Your task to perform on an android device: toggle notification dots Image 0: 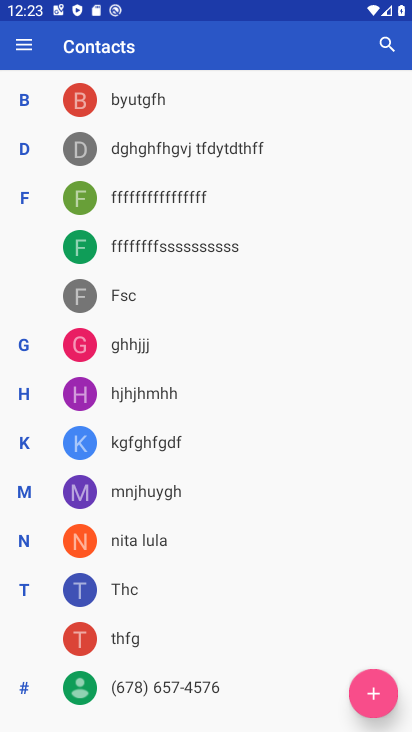
Step 0: press home button
Your task to perform on an android device: toggle notification dots Image 1: 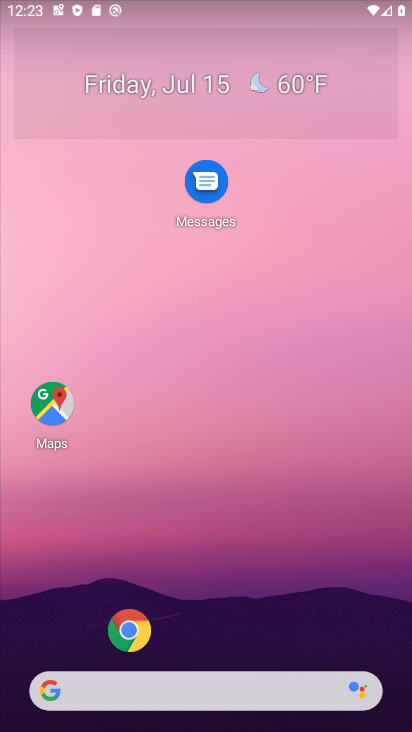
Step 1: drag from (46, 631) to (141, 157)
Your task to perform on an android device: toggle notification dots Image 2: 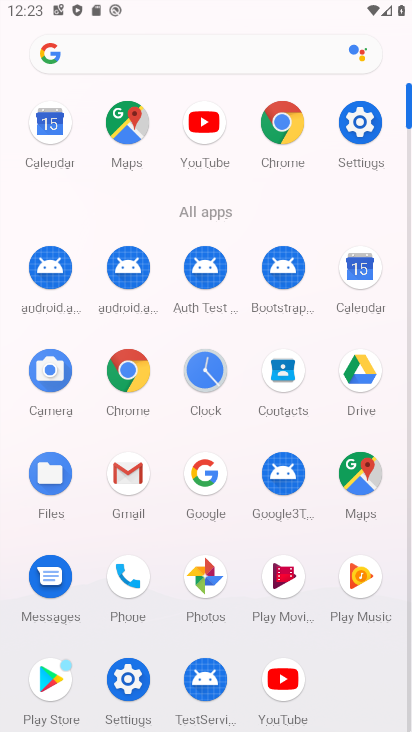
Step 2: click (119, 689)
Your task to perform on an android device: toggle notification dots Image 3: 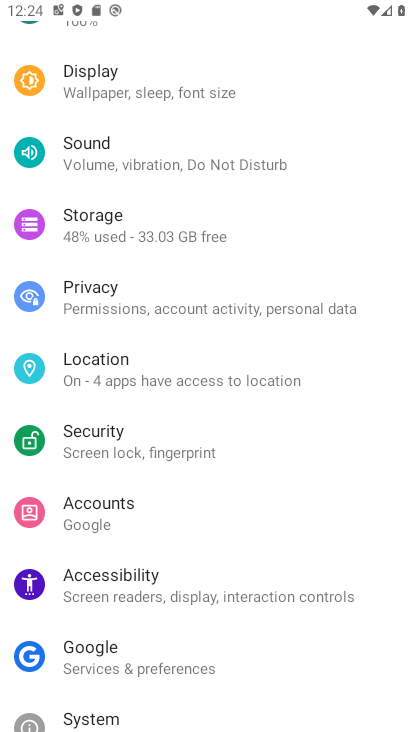
Step 3: drag from (261, 666) to (294, 26)
Your task to perform on an android device: toggle notification dots Image 4: 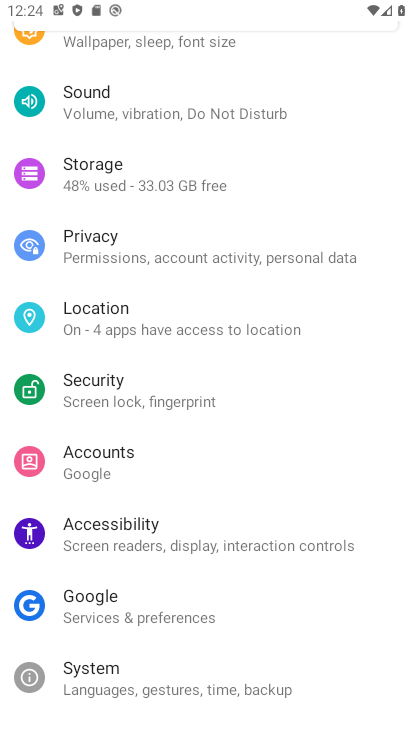
Step 4: drag from (347, 58) to (347, 645)
Your task to perform on an android device: toggle notification dots Image 5: 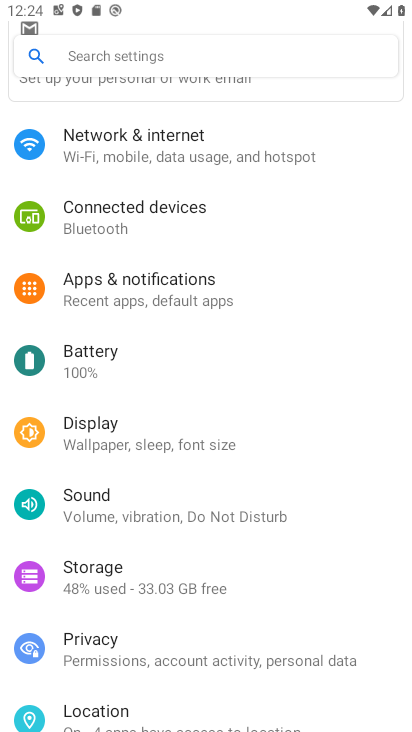
Step 5: click (130, 301)
Your task to perform on an android device: toggle notification dots Image 6: 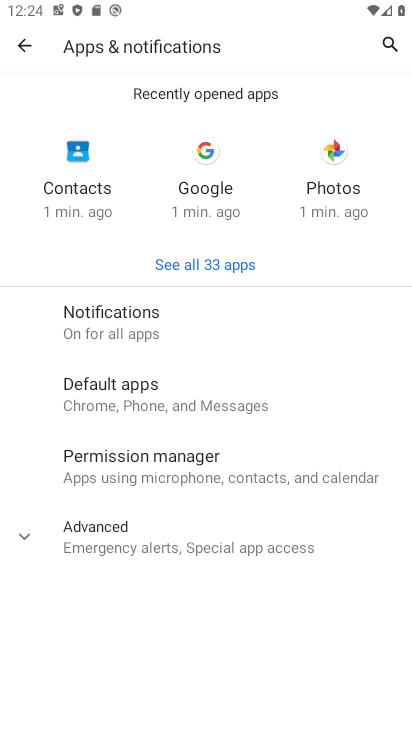
Step 6: click (104, 537)
Your task to perform on an android device: toggle notification dots Image 7: 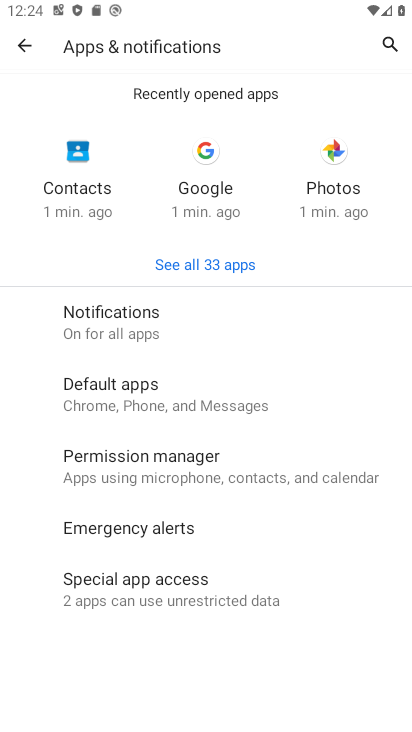
Step 7: click (196, 588)
Your task to perform on an android device: toggle notification dots Image 8: 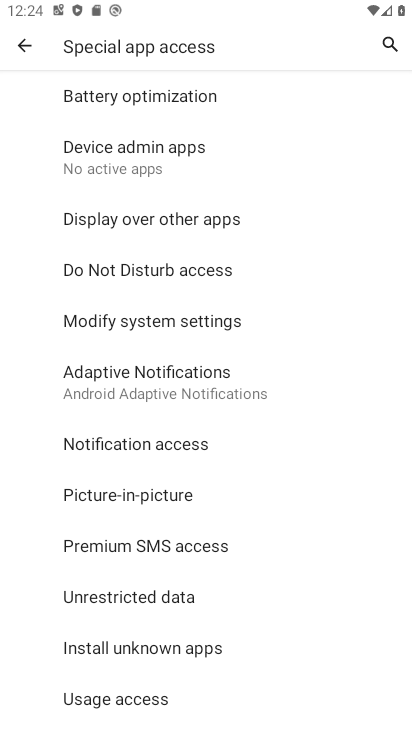
Step 8: drag from (286, 630) to (366, 234)
Your task to perform on an android device: toggle notification dots Image 9: 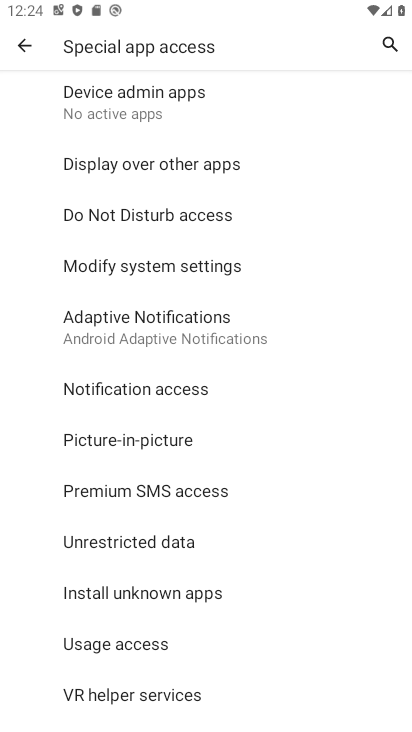
Step 9: click (26, 44)
Your task to perform on an android device: toggle notification dots Image 10: 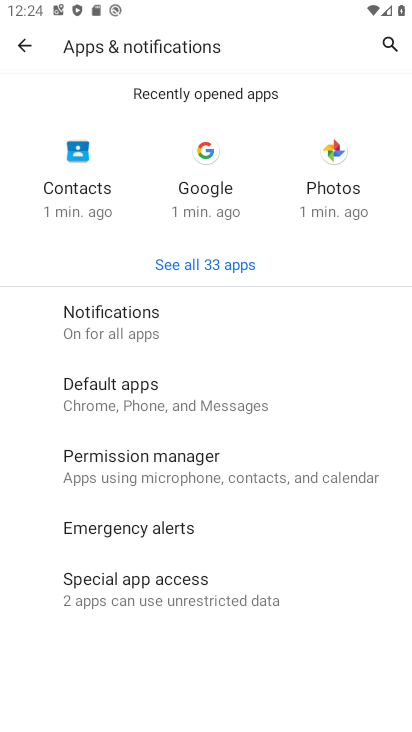
Step 10: click (106, 404)
Your task to perform on an android device: toggle notification dots Image 11: 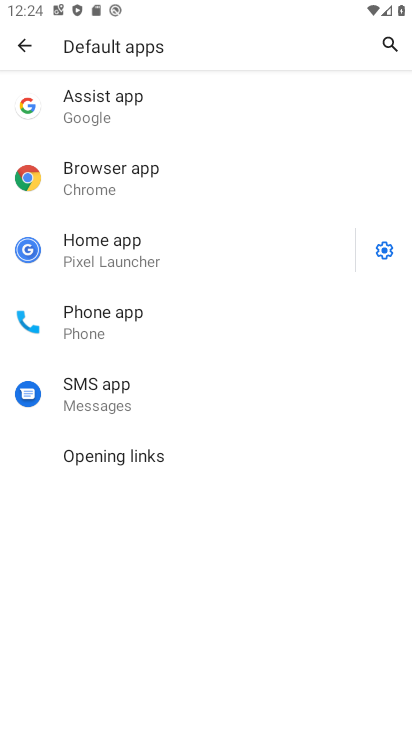
Step 11: click (129, 320)
Your task to perform on an android device: toggle notification dots Image 12: 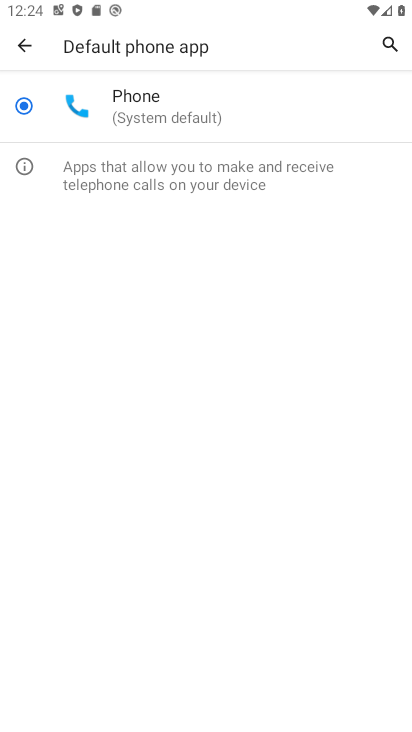
Step 12: click (23, 39)
Your task to perform on an android device: toggle notification dots Image 13: 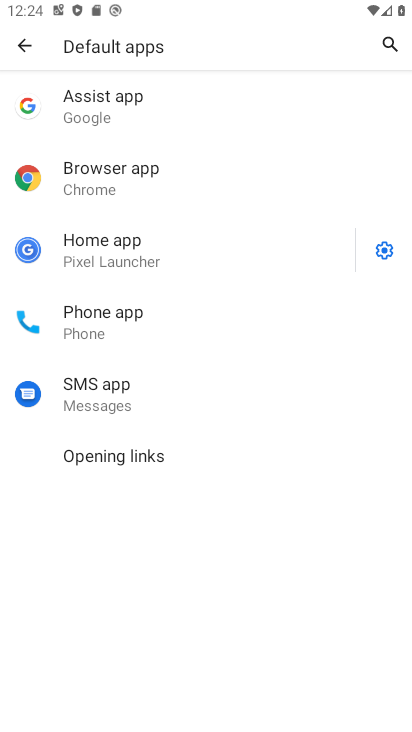
Step 13: click (23, 39)
Your task to perform on an android device: toggle notification dots Image 14: 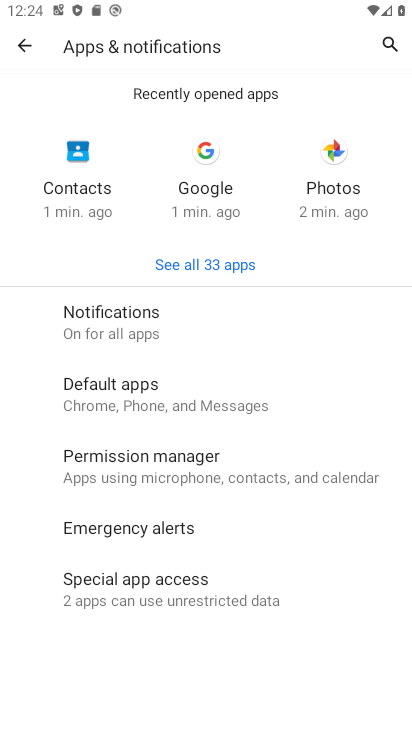
Step 14: click (18, 38)
Your task to perform on an android device: toggle notification dots Image 15: 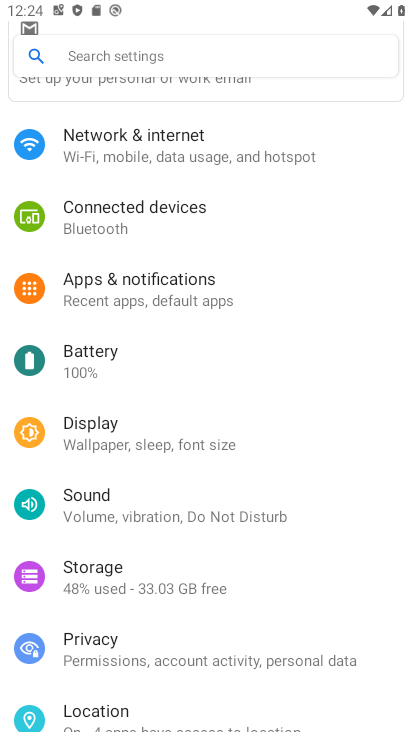
Step 15: task complete